Your task to perform on an android device: check out phone information Image 0: 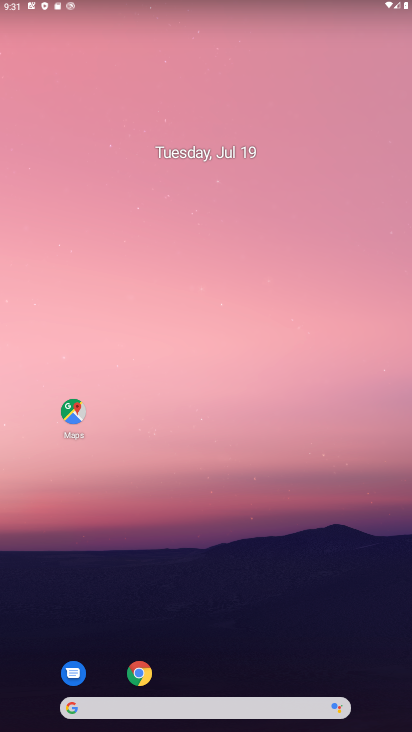
Step 0: press home button
Your task to perform on an android device: check out phone information Image 1: 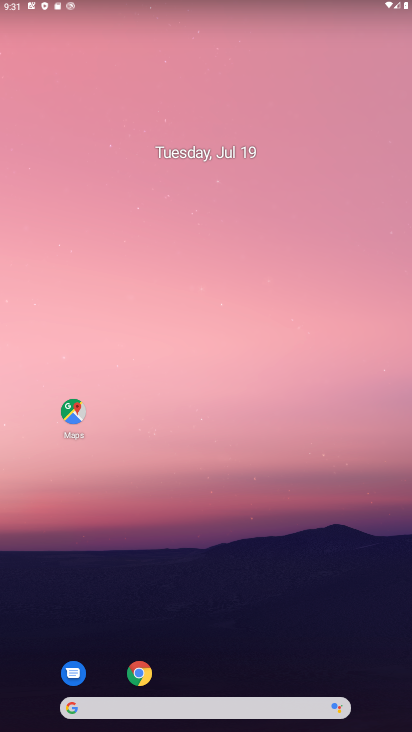
Step 1: drag from (224, 649) to (190, 199)
Your task to perform on an android device: check out phone information Image 2: 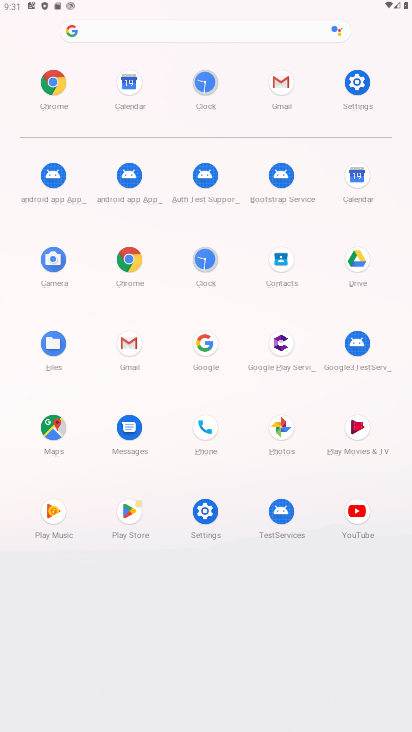
Step 2: click (345, 74)
Your task to perform on an android device: check out phone information Image 3: 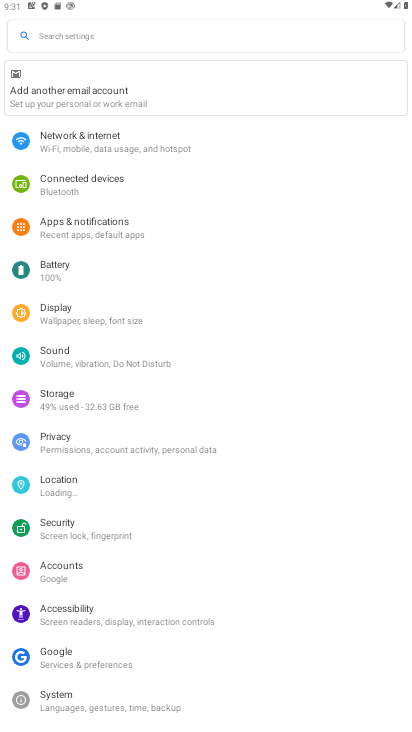
Step 3: drag from (121, 685) to (156, 204)
Your task to perform on an android device: check out phone information Image 4: 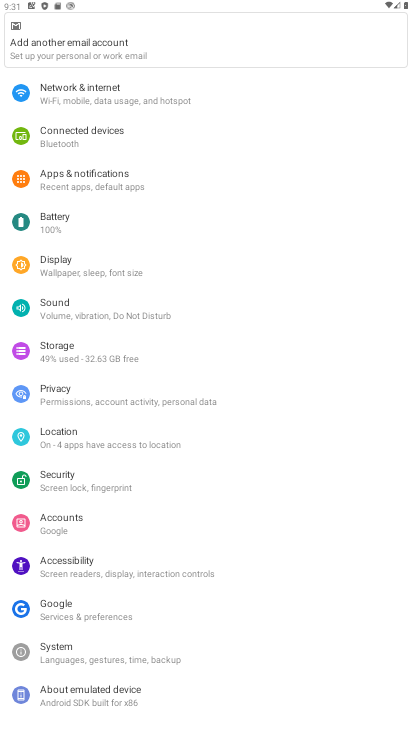
Step 4: click (128, 690)
Your task to perform on an android device: check out phone information Image 5: 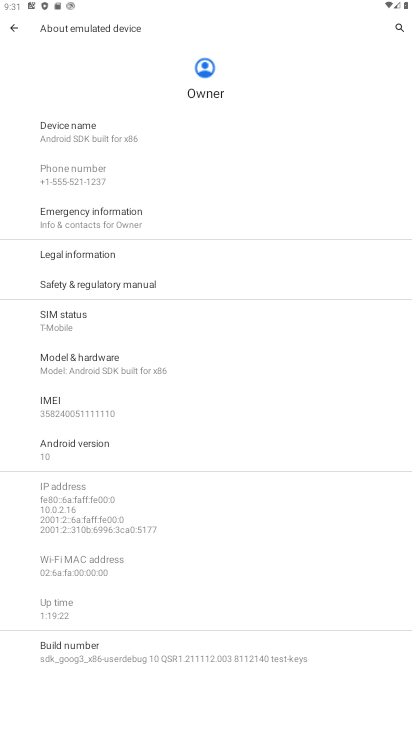
Step 5: task complete